Your task to perform on an android device: check out phone information Image 0: 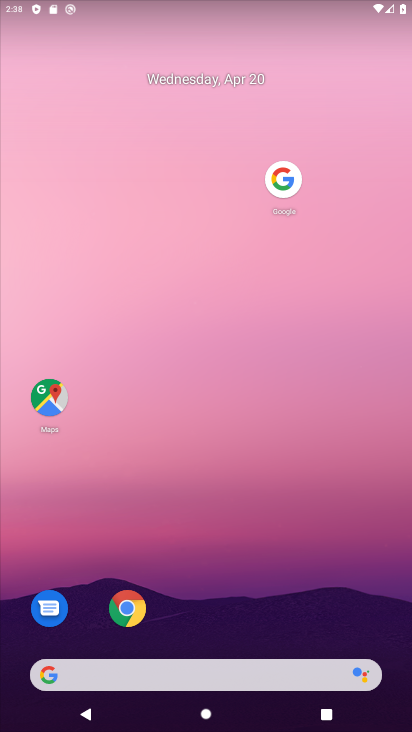
Step 0: drag from (302, 532) to (162, 63)
Your task to perform on an android device: check out phone information Image 1: 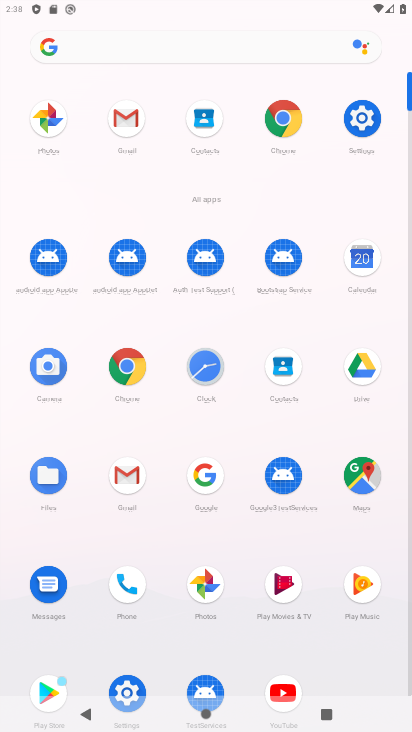
Step 1: click (135, 582)
Your task to perform on an android device: check out phone information Image 2: 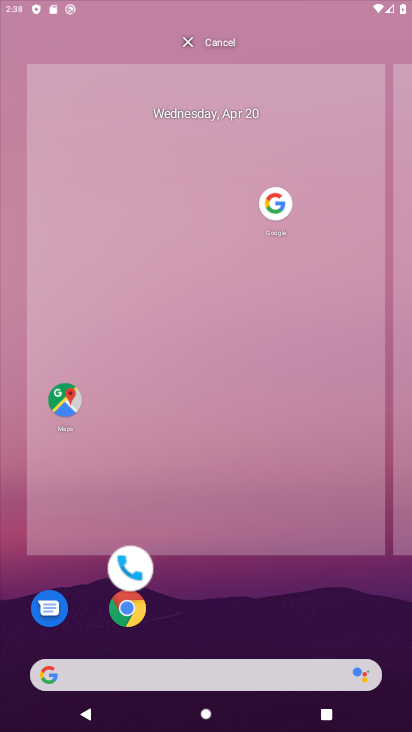
Step 2: click (151, 541)
Your task to perform on an android device: check out phone information Image 3: 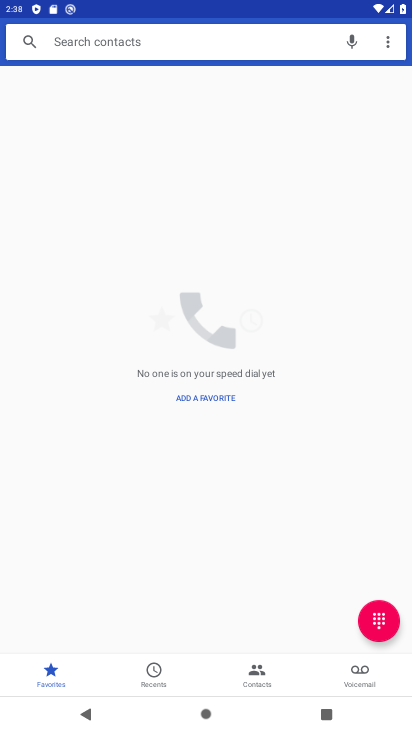
Step 3: click (388, 40)
Your task to perform on an android device: check out phone information Image 4: 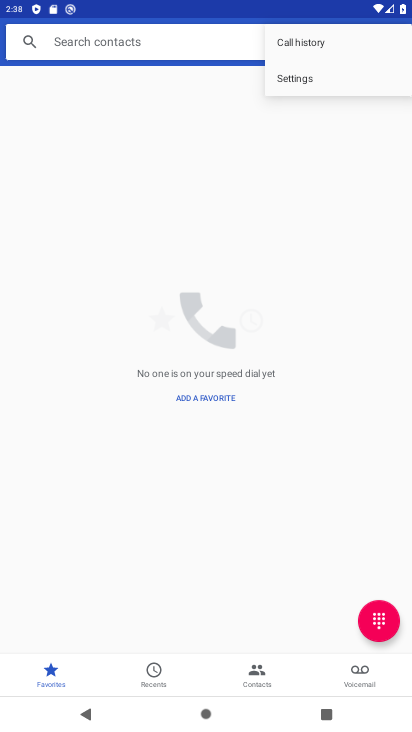
Step 4: click (308, 83)
Your task to perform on an android device: check out phone information Image 5: 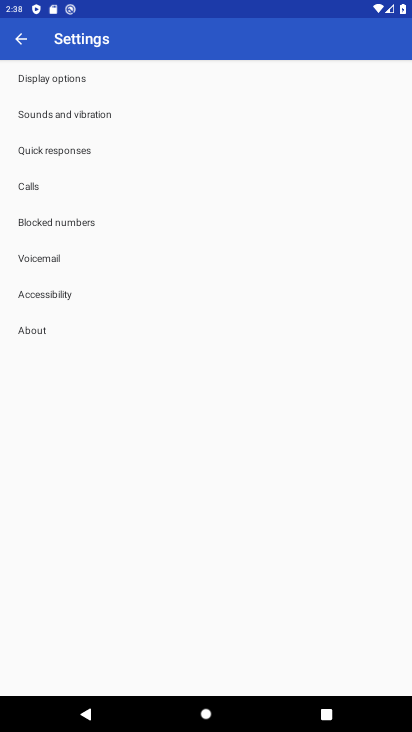
Step 5: click (45, 334)
Your task to perform on an android device: check out phone information Image 6: 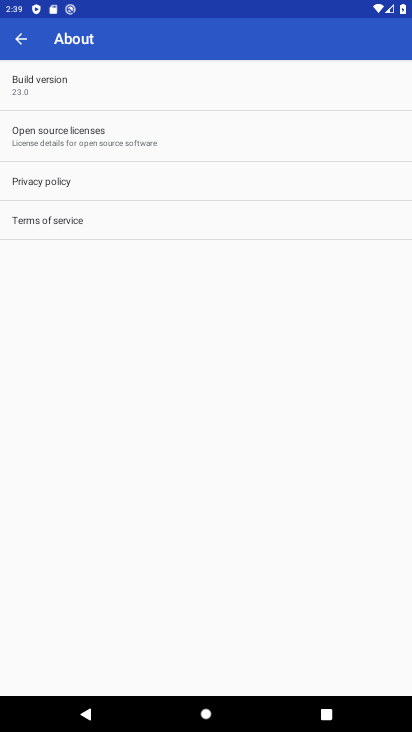
Step 6: task complete